Your task to perform on an android device: turn on improve location accuracy Image 0: 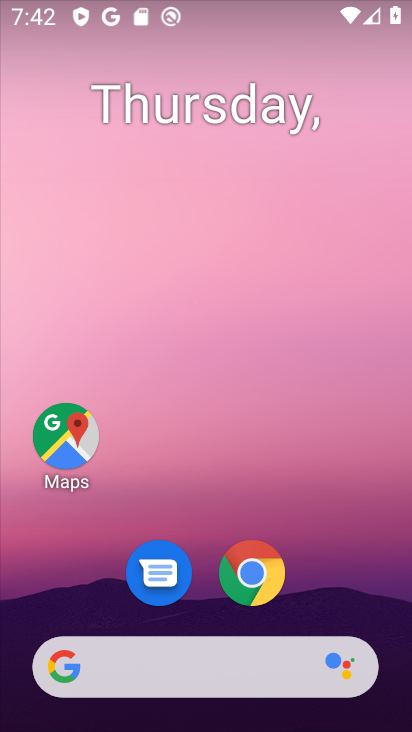
Step 0: drag from (319, 577) to (313, 240)
Your task to perform on an android device: turn on improve location accuracy Image 1: 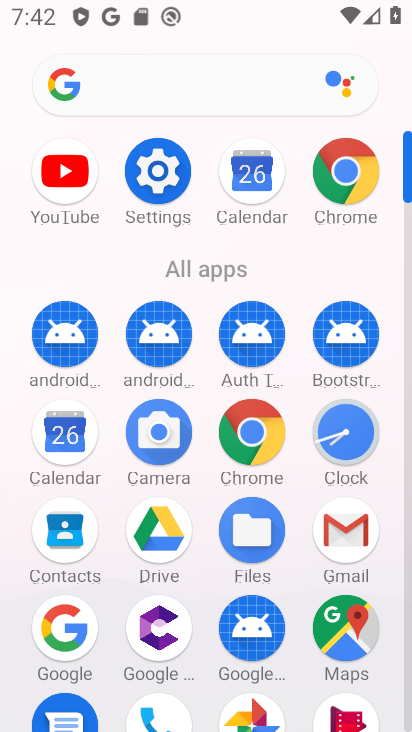
Step 1: click (147, 177)
Your task to perform on an android device: turn on improve location accuracy Image 2: 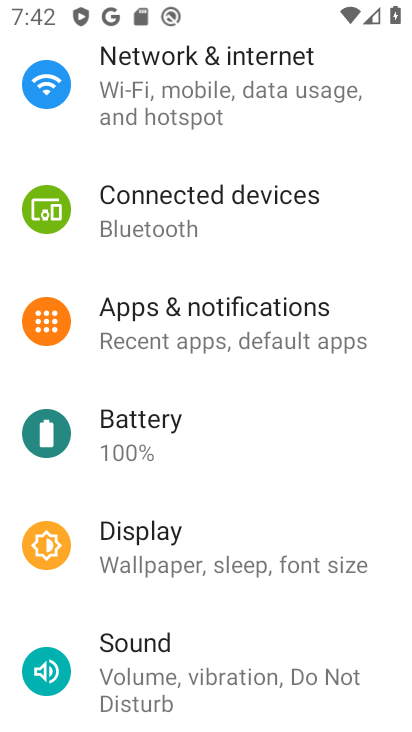
Step 2: drag from (161, 623) to (159, 152)
Your task to perform on an android device: turn on improve location accuracy Image 3: 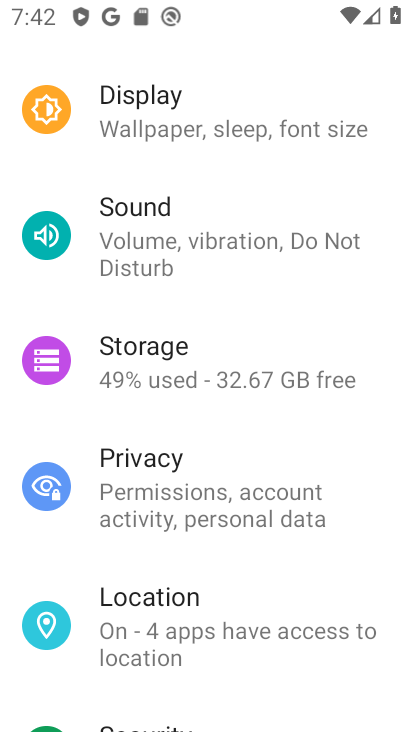
Step 3: click (141, 620)
Your task to perform on an android device: turn on improve location accuracy Image 4: 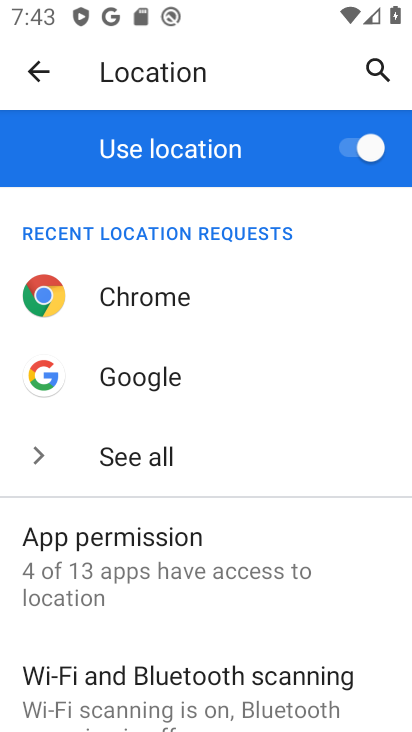
Step 4: drag from (209, 646) to (241, 272)
Your task to perform on an android device: turn on improve location accuracy Image 5: 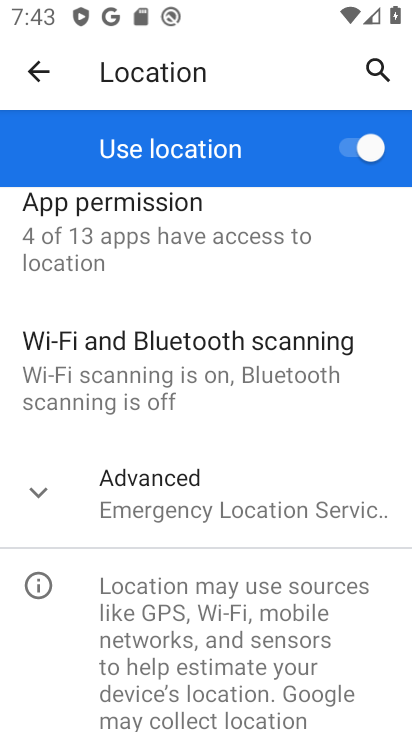
Step 5: click (231, 511)
Your task to perform on an android device: turn on improve location accuracy Image 6: 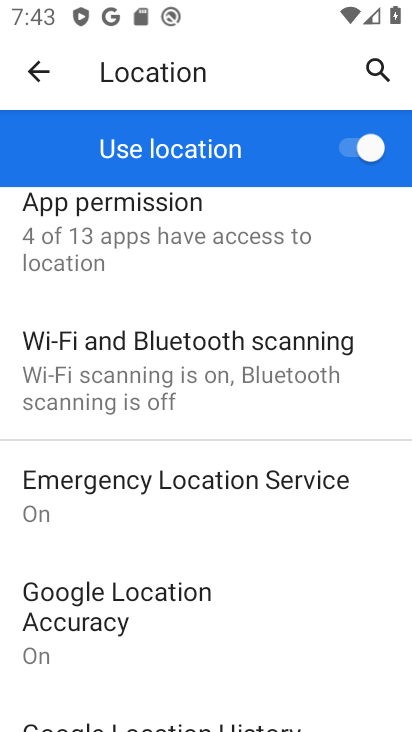
Step 6: drag from (222, 629) to (231, 267)
Your task to perform on an android device: turn on improve location accuracy Image 7: 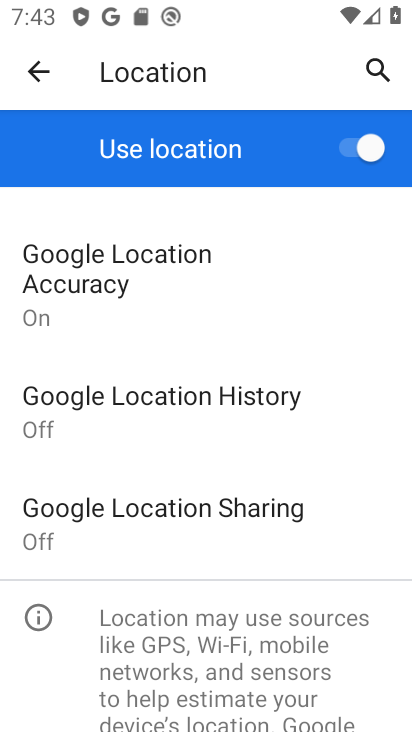
Step 7: drag from (242, 328) to (231, 516)
Your task to perform on an android device: turn on improve location accuracy Image 8: 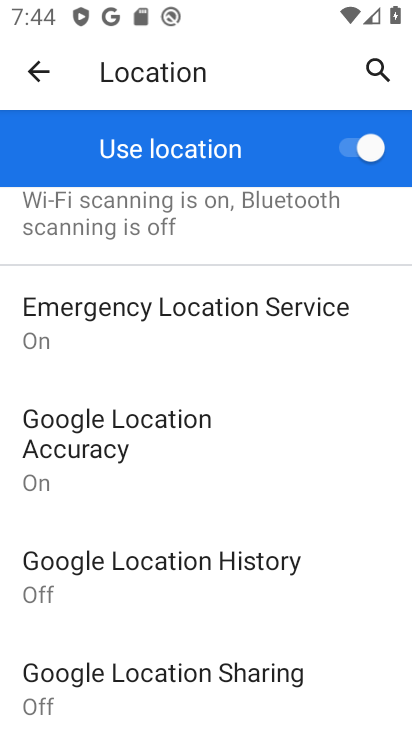
Step 8: click (173, 447)
Your task to perform on an android device: turn on improve location accuracy Image 9: 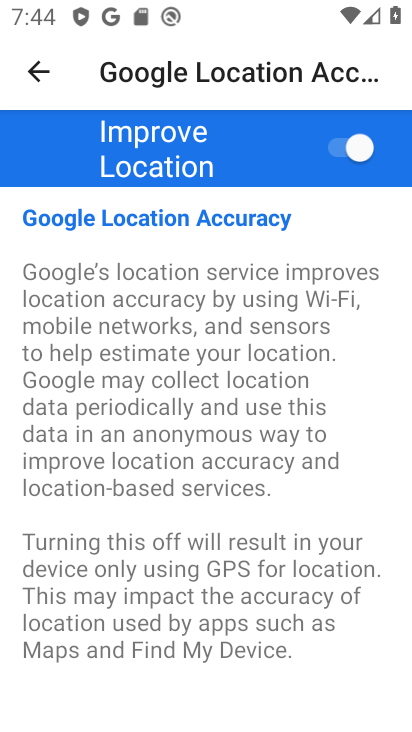
Step 9: task complete